Your task to perform on an android device: View the shopping cart on costco.com. Image 0: 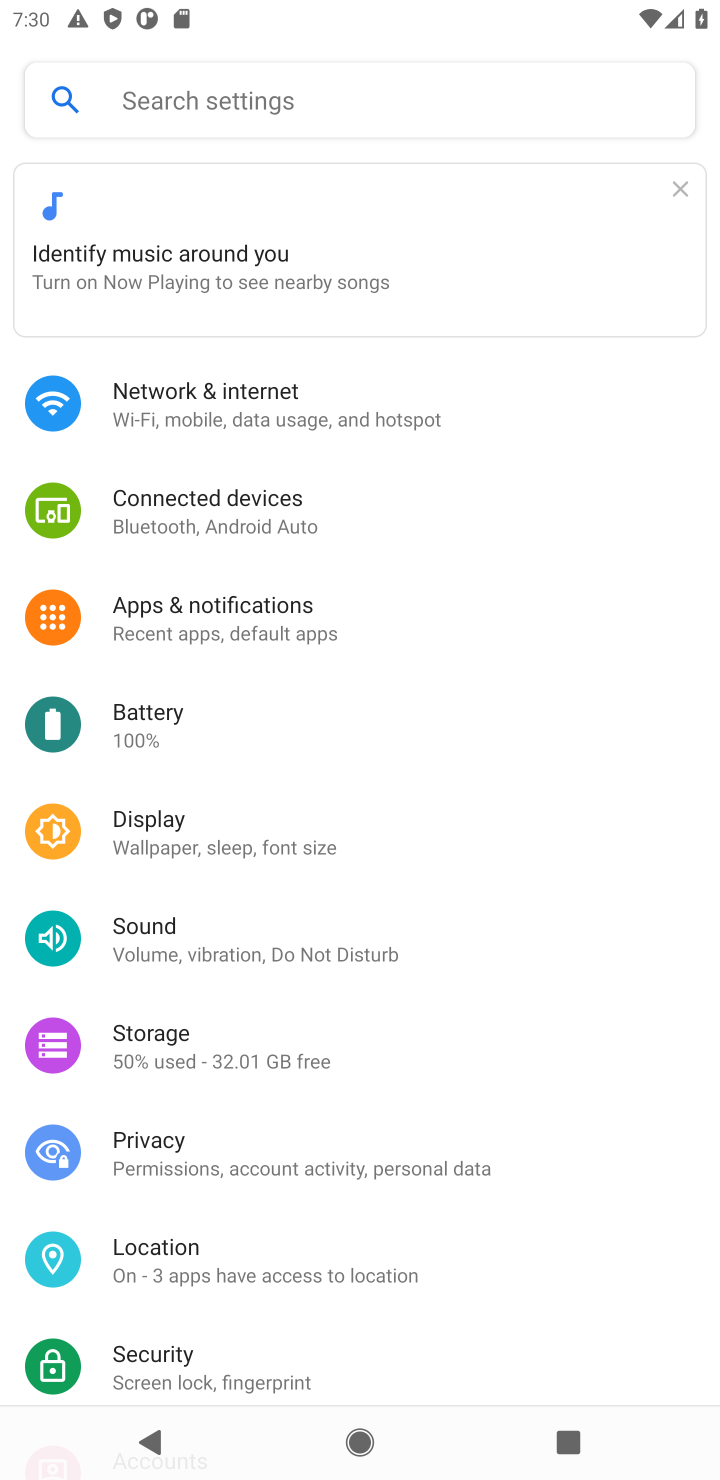
Step 0: press home button
Your task to perform on an android device: View the shopping cart on costco.com. Image 1: 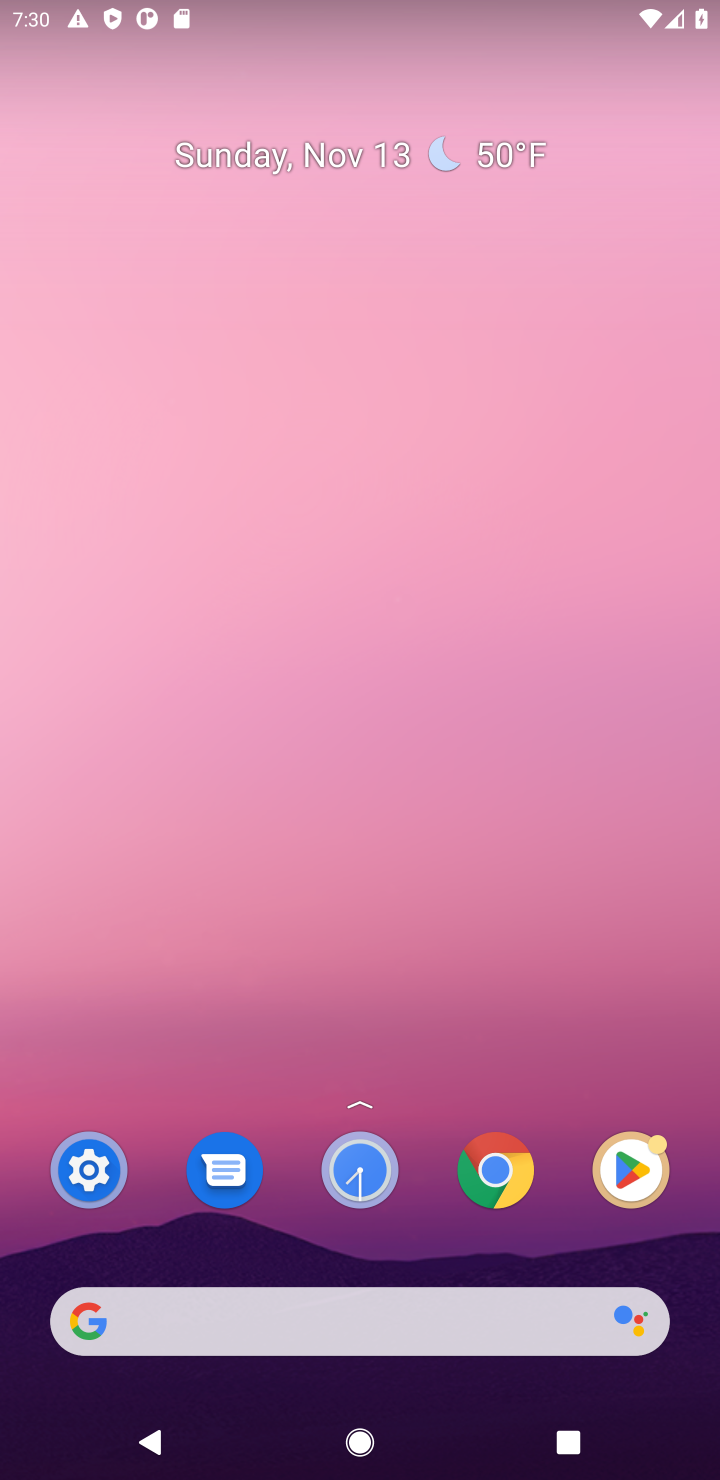
Step 1: click (431, 1310)
Your task to perform on an android device: View the shopping cart on costco.com. Image 2: 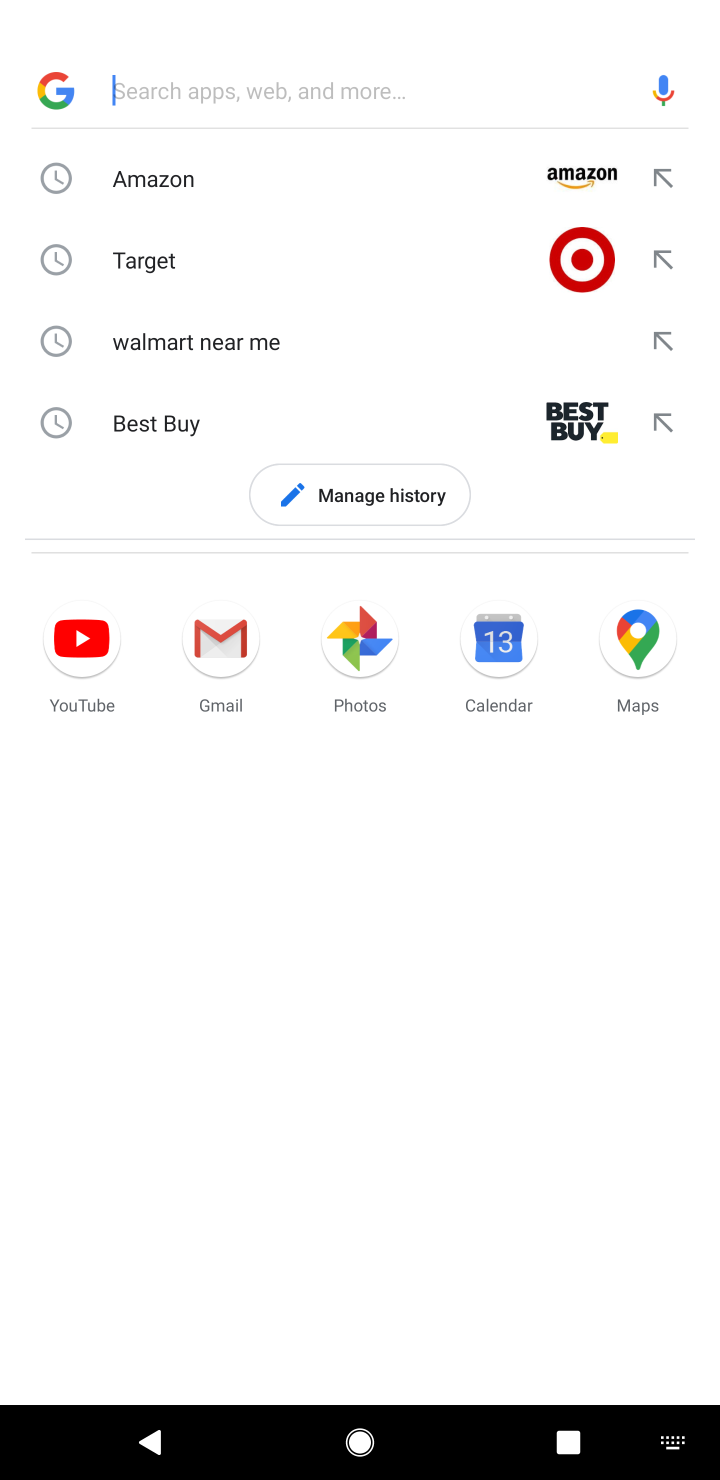
Step 2: type "costco.com"
Your task to perform on an android device: View the shopping cart on costco.com. Image 3: 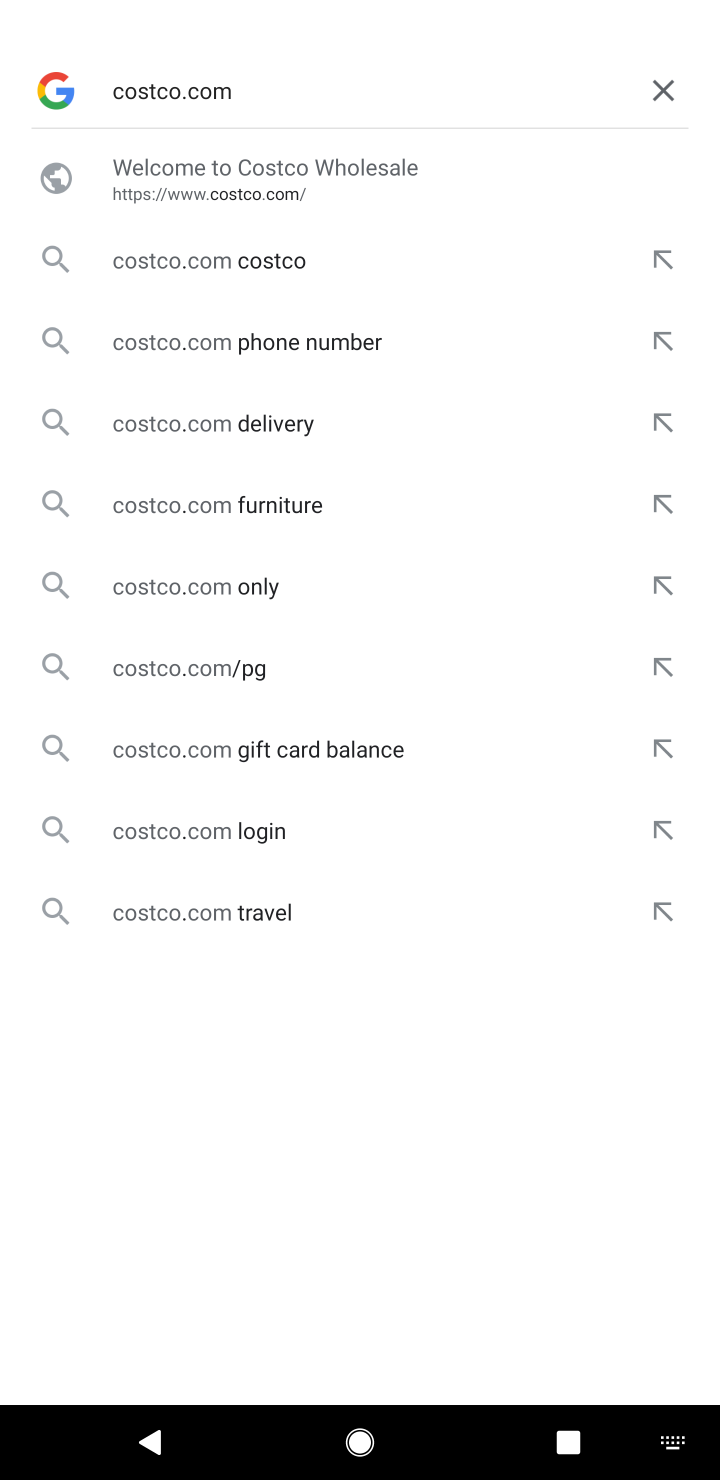
Step 3: click (419, 201)
Your task to perform on an android device: View the shopping cart on costco.com. Image 4: 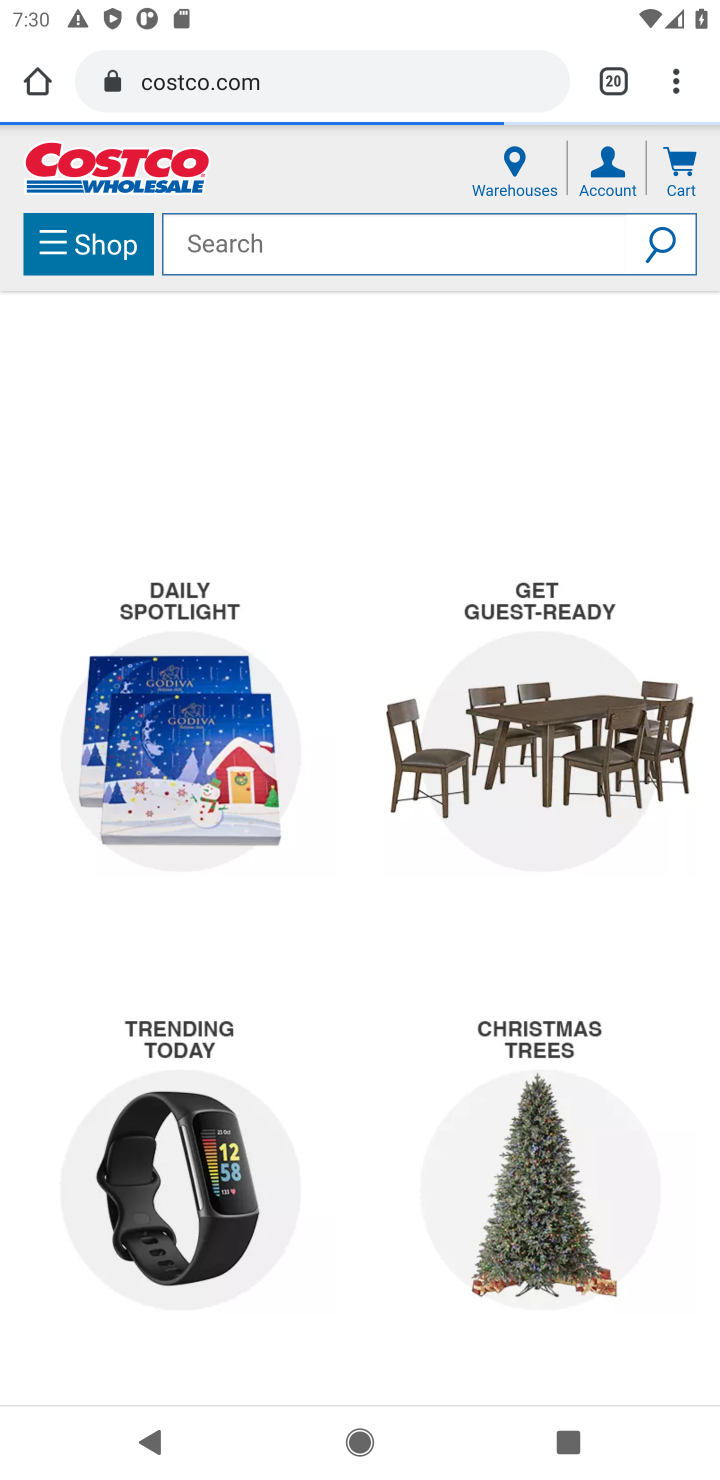
Step 4: task complete